Your task to perform on an android device: Open privacy settings Image 0: 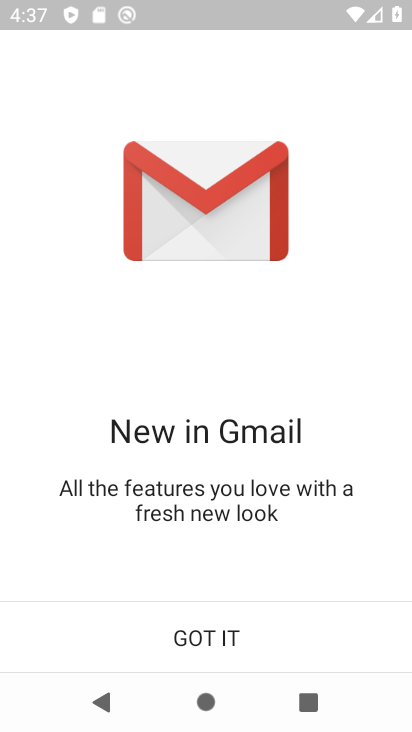
Step 0: click (227, 621)
Your task to perform on an android device: Open privacy settings Image 1: 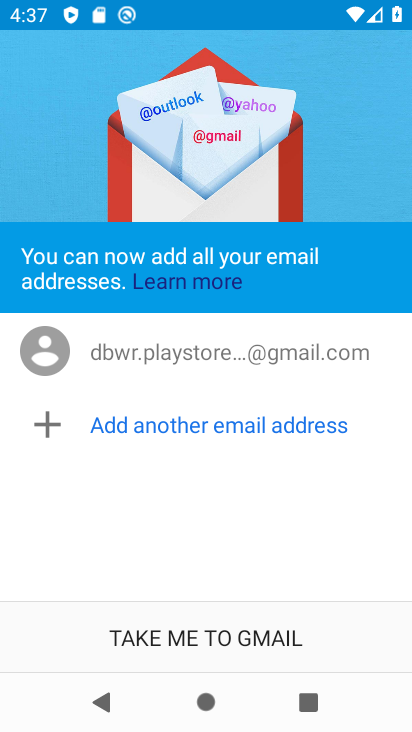
Step 1: click (201, 630)
Your task to perform on an android device: Open privacy settings Image 2: 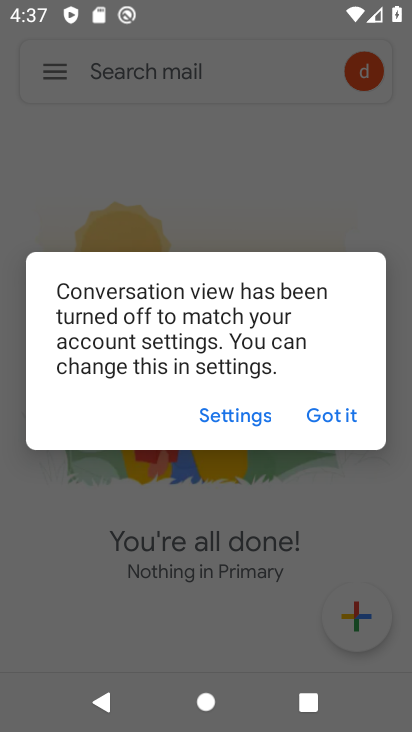
Step 2: click (329, 413)
Your task to perform on an android device: Open privacy settings Image 3: 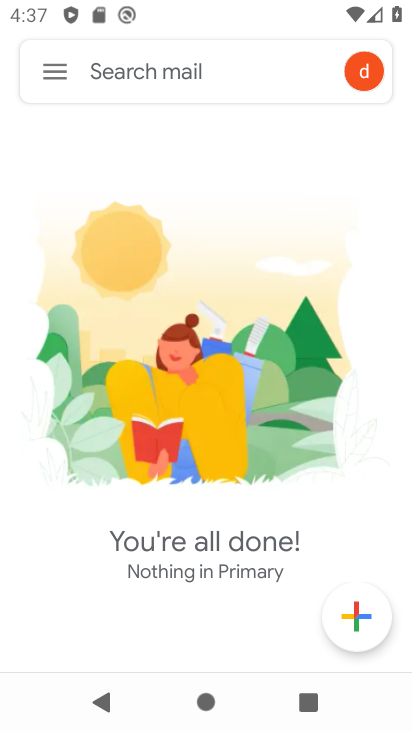
Step 3: drag from (272, 625) to (196, 156)
Your task to perform on an android device: Open privacy settings Image 4: 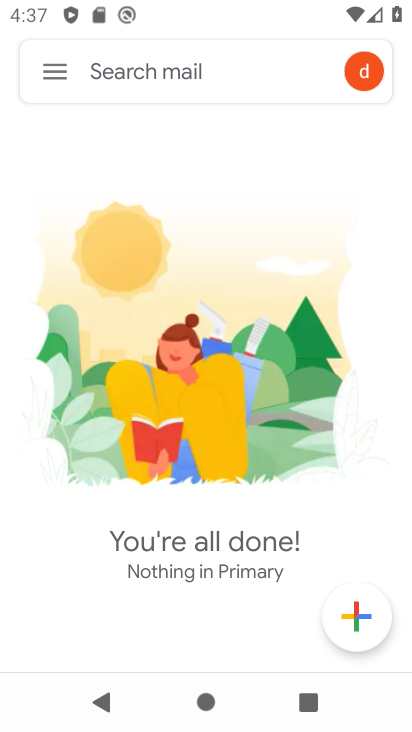
Step 4: press home button
Your task to perform on an android device: Open privacy settings Image 5: 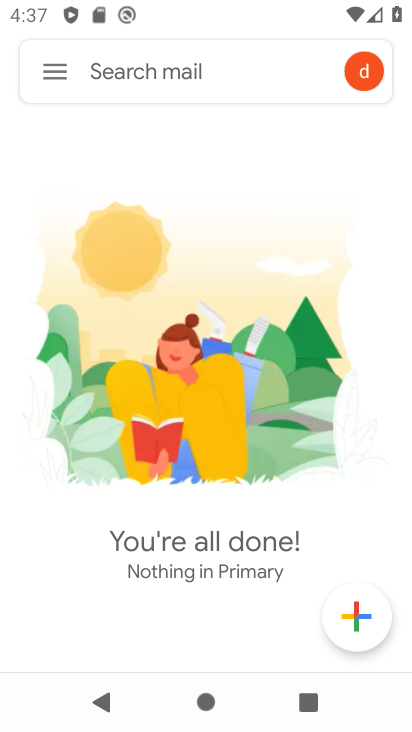
Step 5: press home button
Your task to perform on an android device: Open privacy settings Image 6: 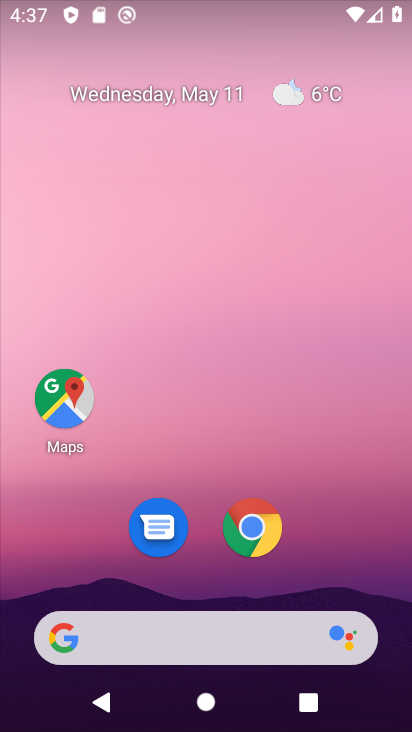
Step 6: drag from (317, 511) to (139, 7)
Your task to perform on an android device: Open privacy settings Image 7: 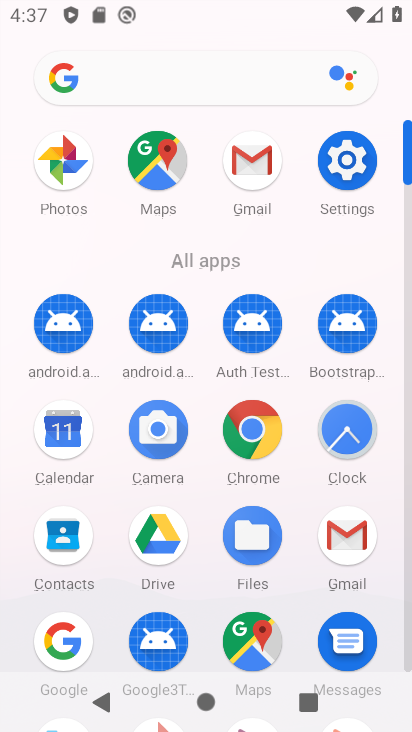
Step 7: drag from (326, 431) to (153, 3)
Your task to perform on an android device: Open privacy settings Image 8: 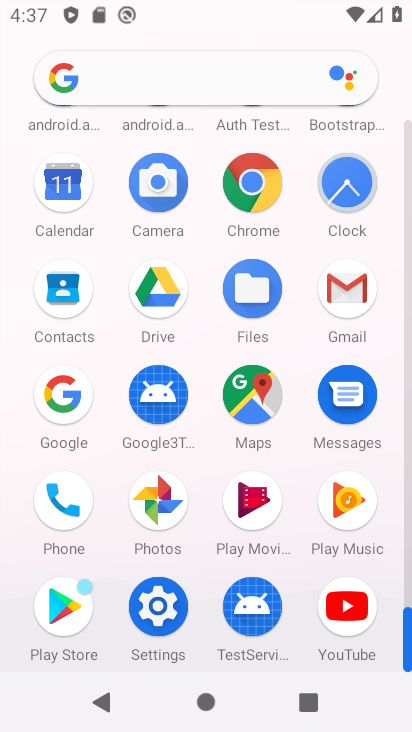
Step 8: click (162, 618)
Your task to perform on an android device: Open privacy settings Image 9: 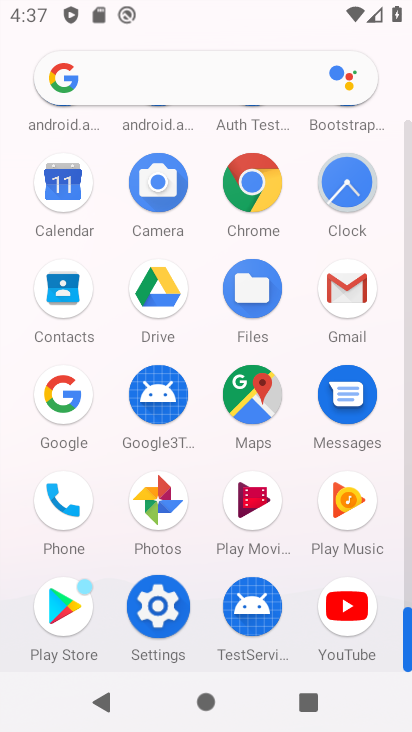
Step 9: click (118, 590)
Your task to perform on an android device: Open privacy settings Image 10: 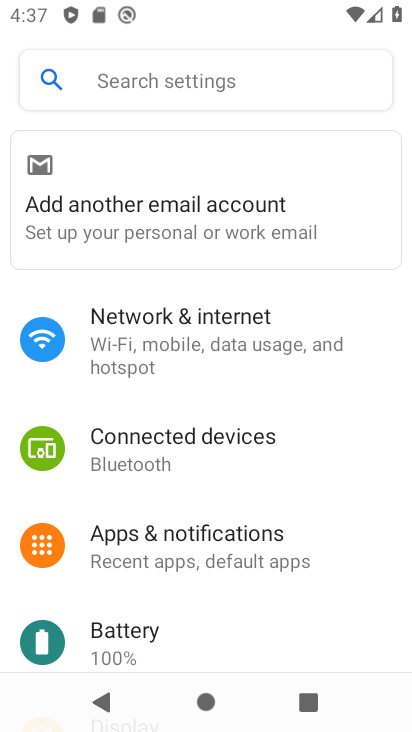
Step 10: click (139, 598)
Your task to perform on an android device: Open privacy settings Image 11: 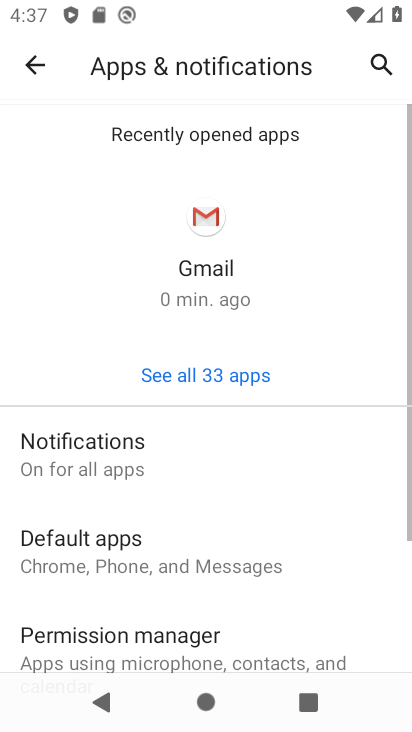
Step 11: click (26, 53)
Your task to perform on an android device: Open privacy settings Image 12: 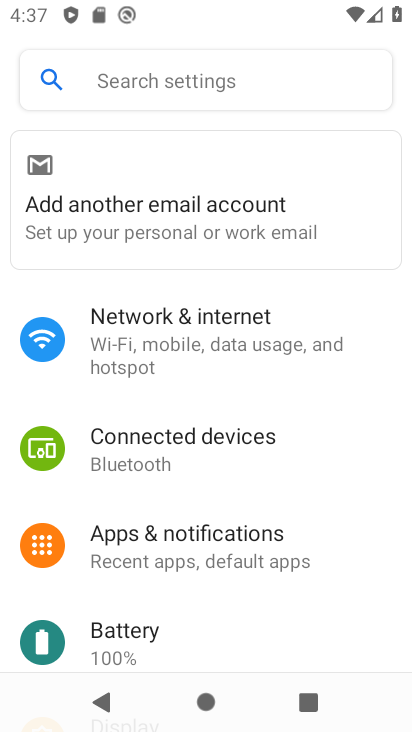
Step 12: click (178, 553)
Your task to perform on an android device: Open privacy settings Image 13: 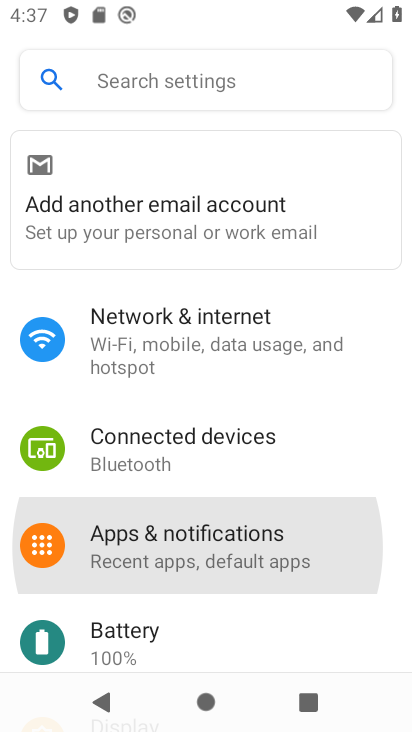
Step 13: click (178, 551)
Your task to perform on an android device: Open privacy settings Image 14: 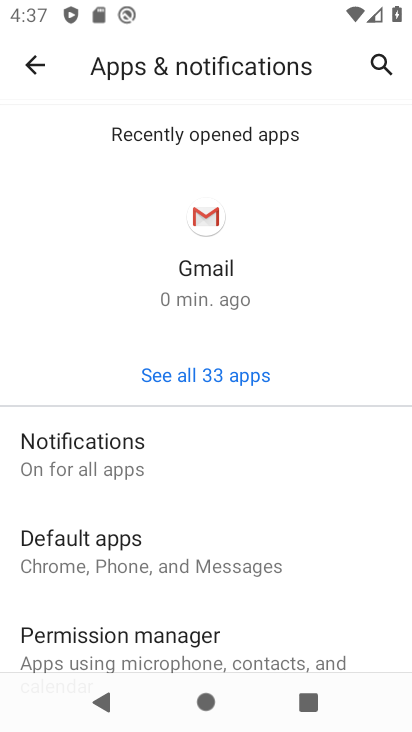
Step 14: drag from (164, 534) to (134, 215)
Your task to perform on an android device: Open privacy settings Image 15: 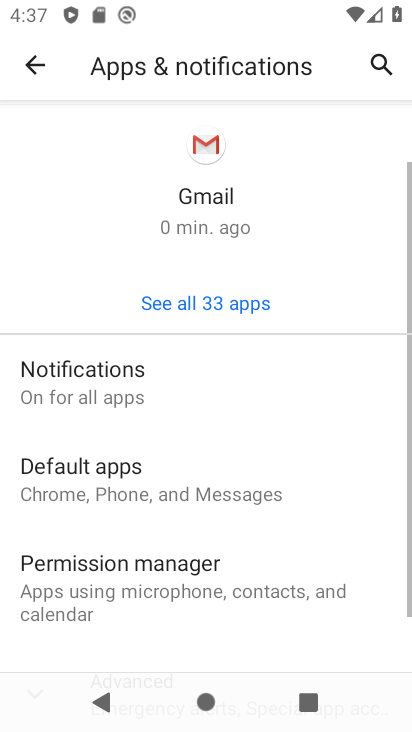
Step 15: drag from (186, 558) to (168, 212)
Your task to perform on an android device: Open privacy settings Image 16: 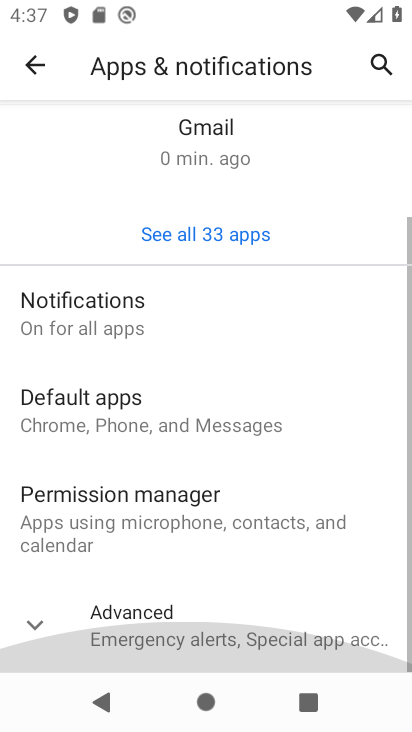
Step 16: drag from (204, 539) to (247, 212)
Your task to perform on an android device: Open privacy settings Image 17: 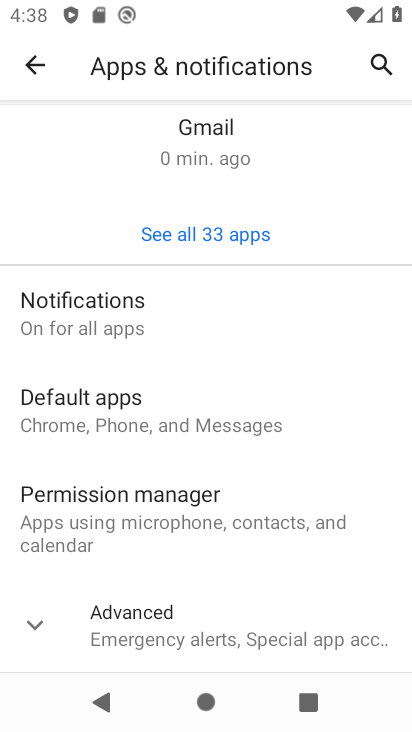
Step 17: click (37, 83)
Your task to perform on an android device: Open privacy settings Image 18: 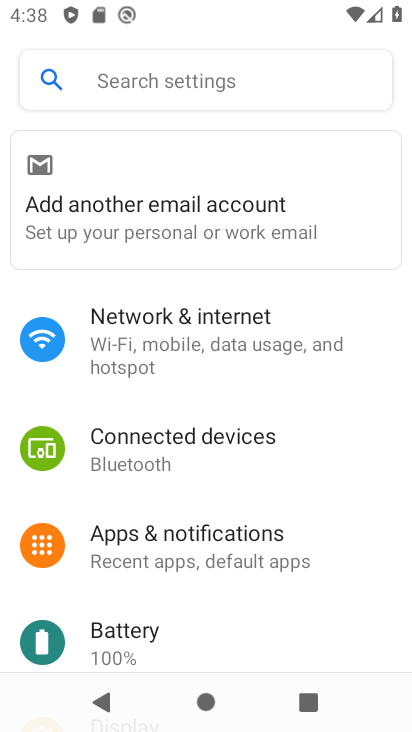
Step 18: drag from (178, 476) to (152, 164)
Your task to perform on an android device: Open privacy settings Image 19: 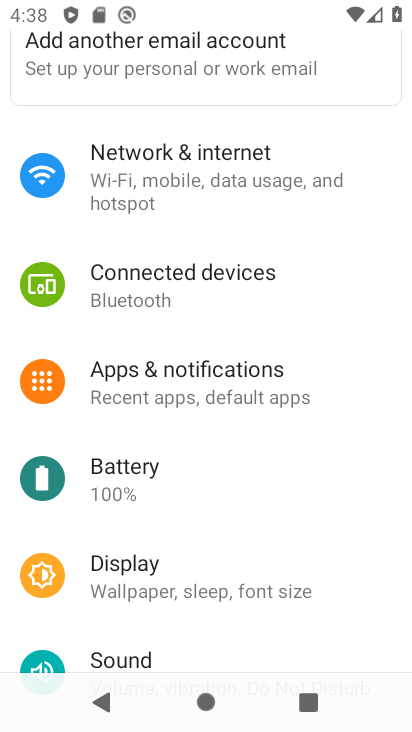
Step 19: drag from (158, 616) to (135, 204)
Your task to perform on an android device: Open privacy settings Image 20: 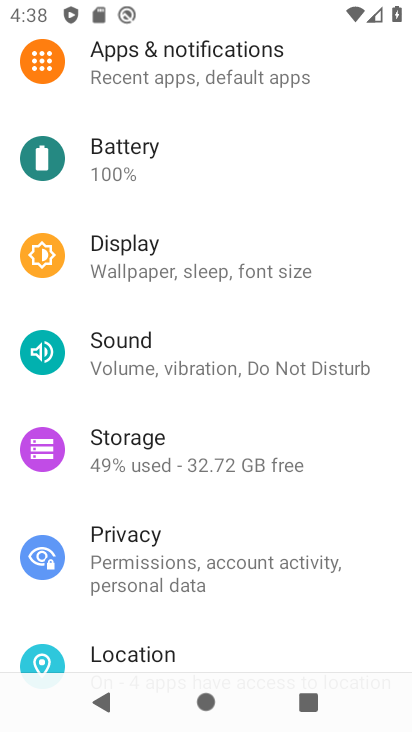
Step 20: drag from (205, 432) to (194, 10)
Your task to perform on an android device: Open privacy settings Image 21: 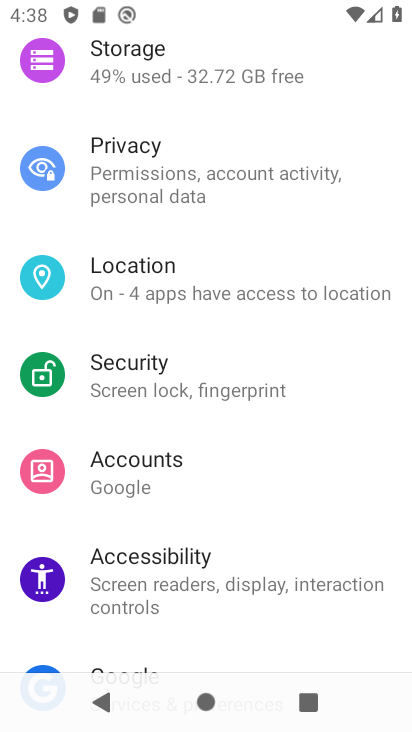
Step 21: click (139, 183)
Your task to perform on an android device: Open privacy settings Image 22: 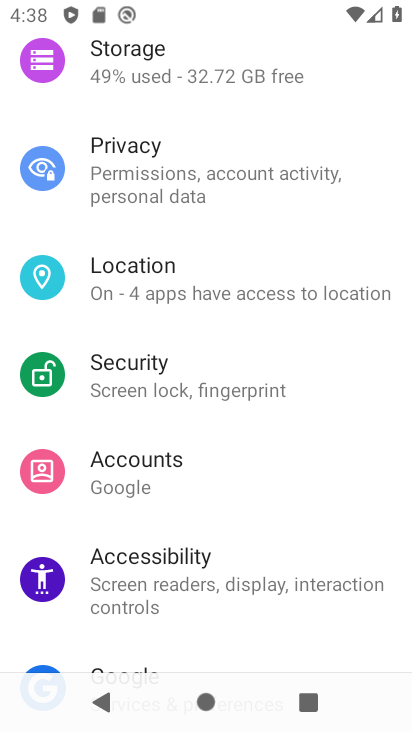
Step 22: click (137, 184)
Your task to perform on an android device: Open privacy settings Image 23: 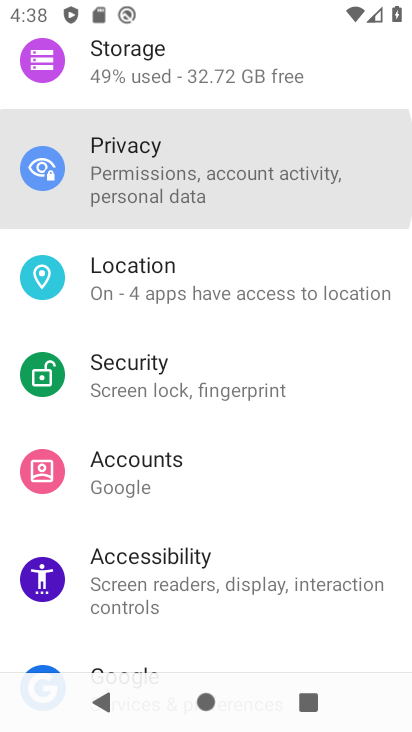
Step 23: click (134, 184)
Your task to perform on an android device: Open privacy settings Image 24: 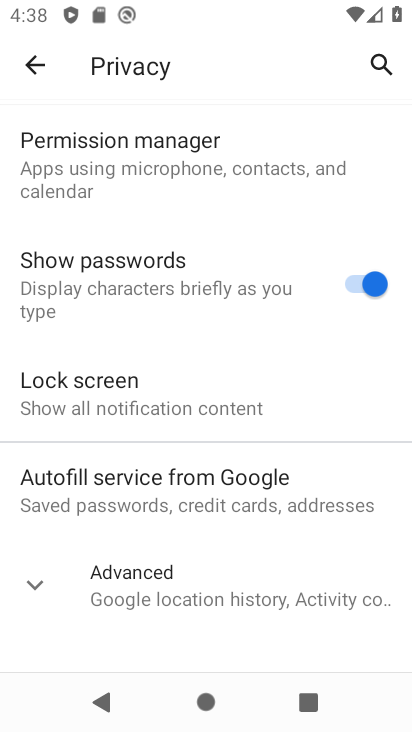
Step 24: task complete